Your task to perform on an android device: Open Reddit.com Image 0: 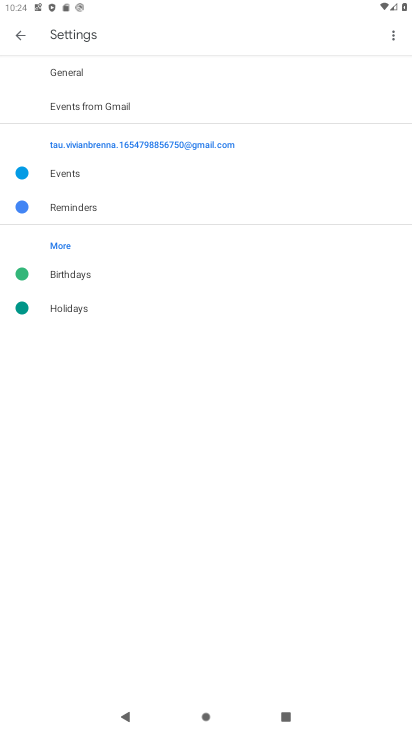
Step 0: press home button
Your task to perform on an android device: Open Reddit.com Image 1: 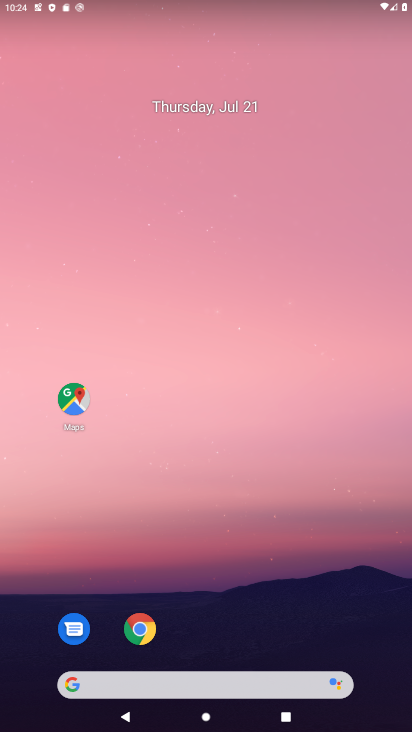
Step 1: click (242, 692)
Your task to perform on an android device: Open Reddit.com Image 2: 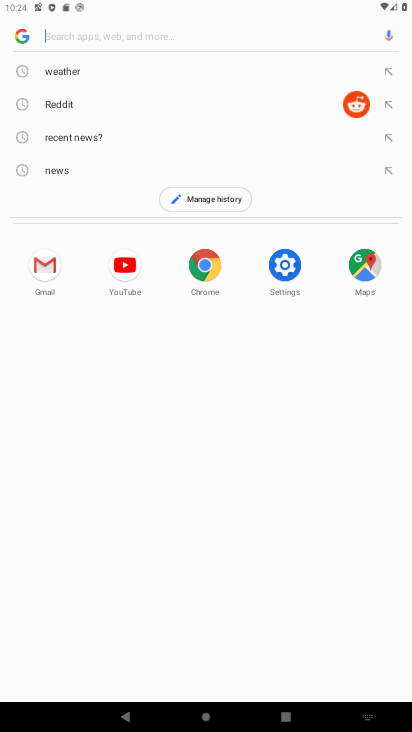
Step 2: click (59, 109)
Your task to perform on an android device: Open Reddit.com Image 3: 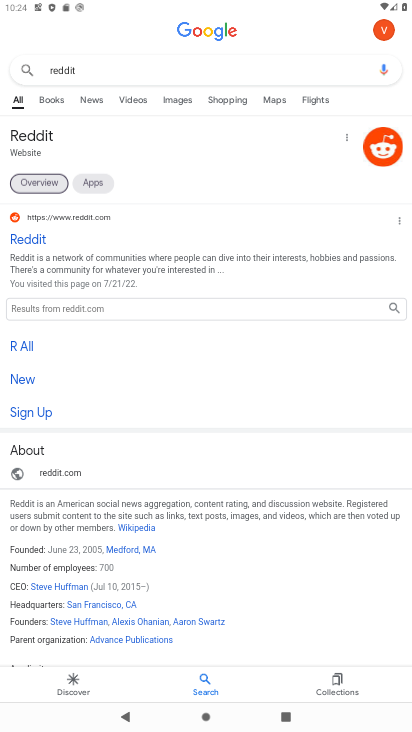
Step 3: click (34, 242)
Your task to perform on an android device: Open Reddit.com Image 4: 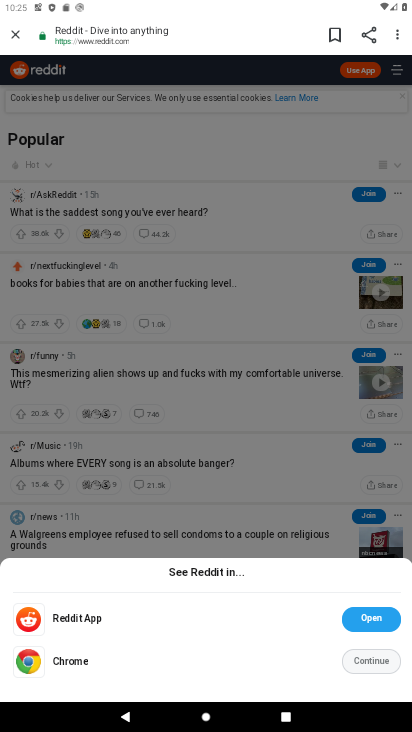
Step 4: task complete